Your task to perform on an android device: turn off improve location accuracy Image 0: 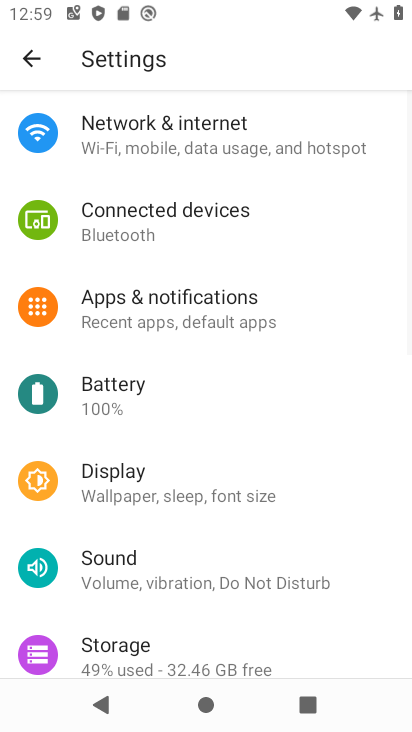
Step 0: drag from (322, 567) to (267, 287)
Your task to perform on an android device: turn off improve location accuracy Image 1: 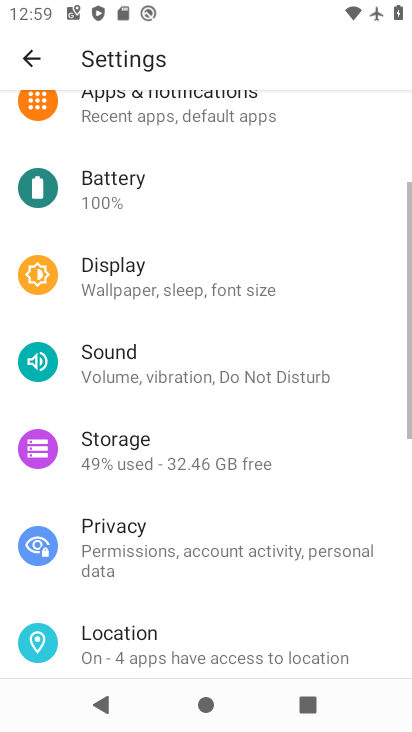
Step 1: click (267, 287)
Your task to perform on an android device: turn off improve location accuracy Image 2: 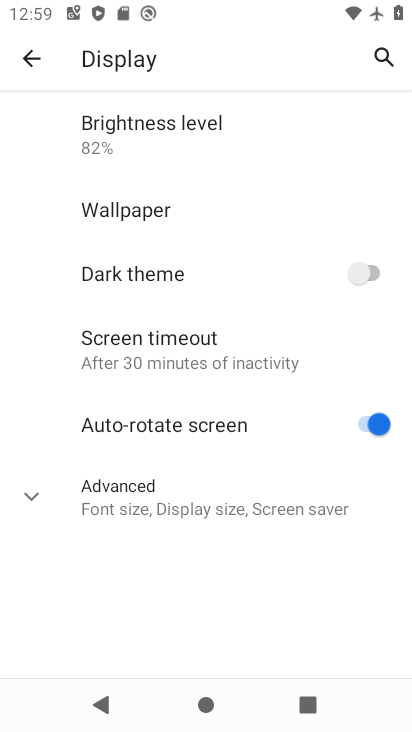
Step 2: click (38, 66)
Your task to perform on an android device: turn off improve location accuracy Image 3: 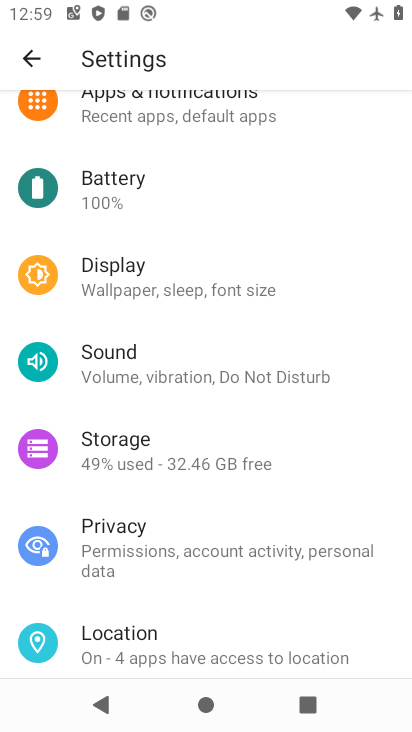
Step 3: click (157, 638)
Your task to perform on an android device: turn off improve location accuracy Image 4: 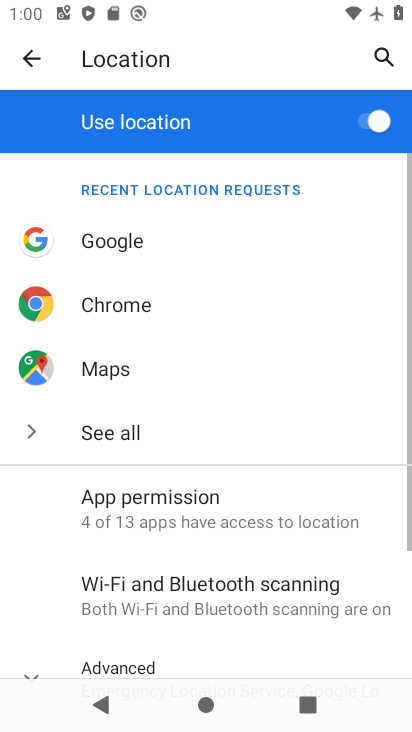
Step 4: drag from (179, 618) to (162, 369)
Your task to perform on an android device: turn off improve location accuracy Image 5: 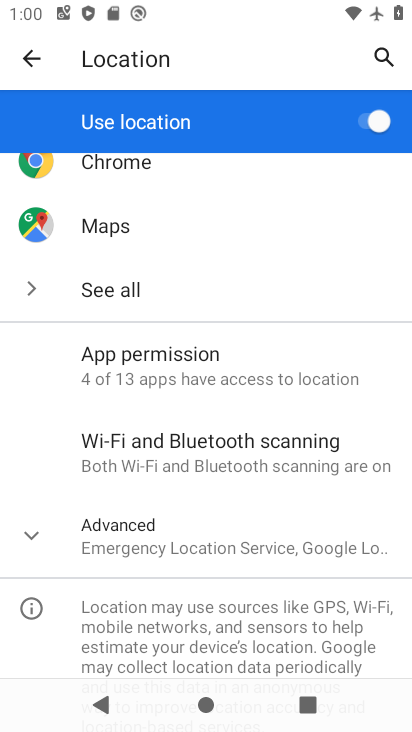
Step 5: click (155, 557)
Your task to perform on an android device: turn off improve location accuracy Image 6: 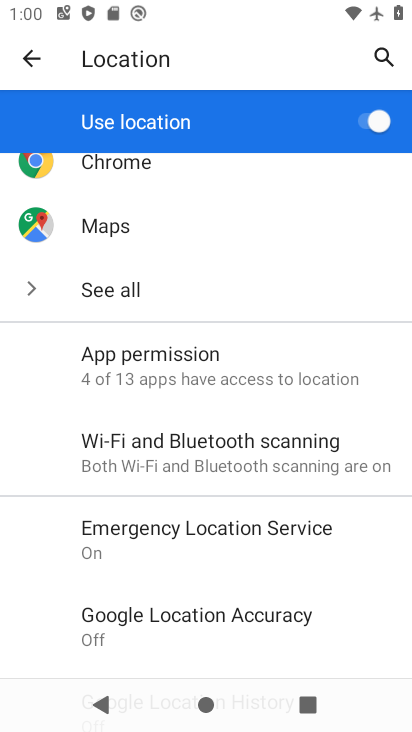
Step 6: task complete